Your task to perform on an android device: change keyboard looks Image 0: 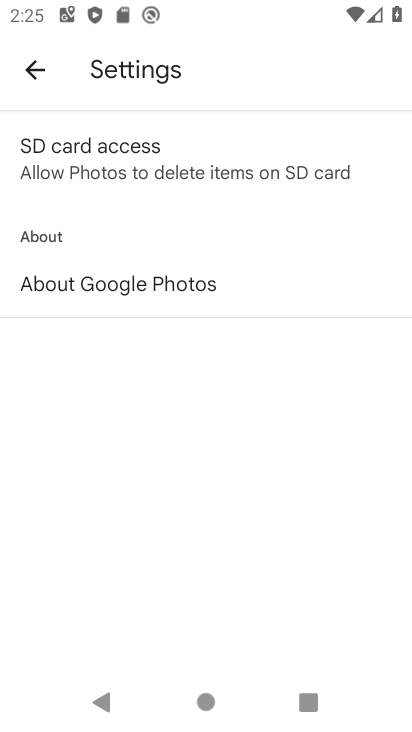
Step 0: press home button
Your task to perform on an android device: change keyboard looks Image 1: 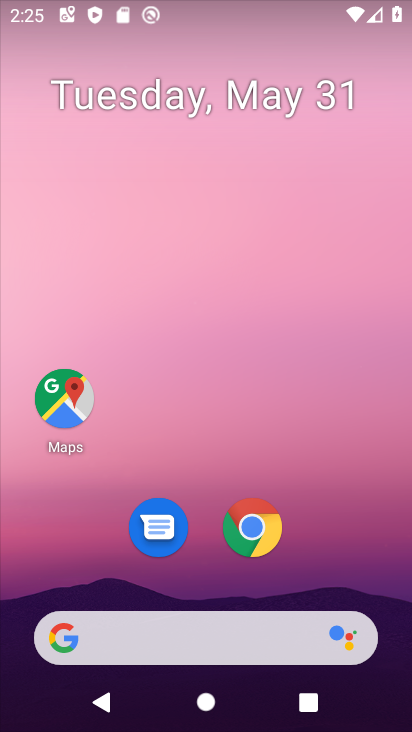
Step 1: drag from (373, 520) to (392, 169)
Your task to perform on an android device: change keyboard looks Image 2: 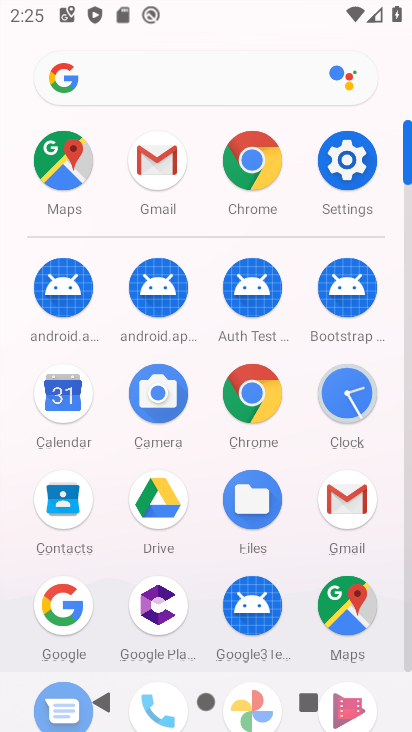
Step 2: click (359, 153)
Your task to perform on an android device: change keyboard looks Image 3: 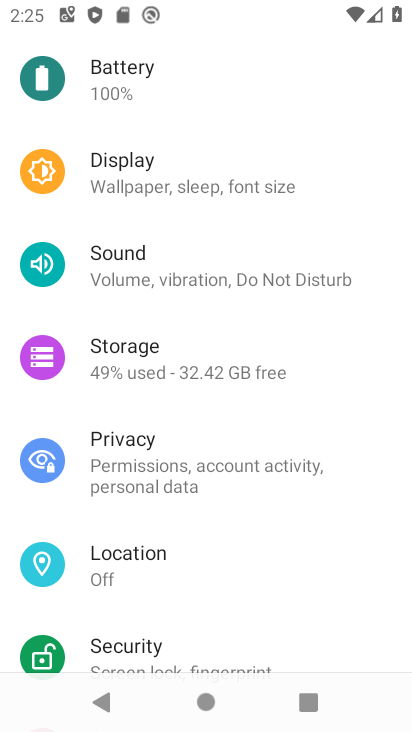
Step 3: drag from (177, 587) to (246, 169)
Your task to perform on an android device: change keyboard looks Image 4: 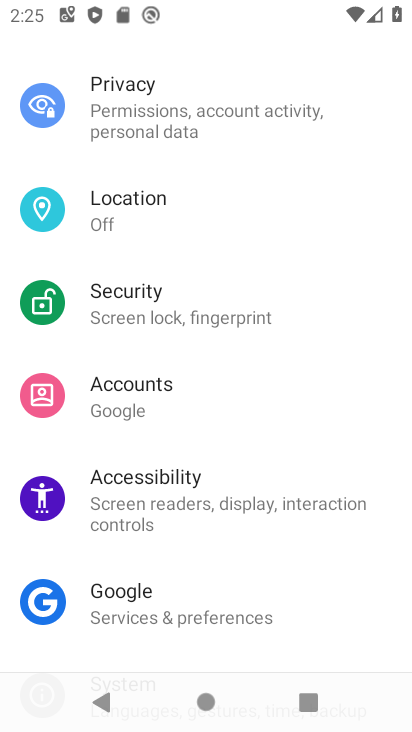
Step 4: drag from (231, 598) to (252, 256)
Your task to perform on an android device: change keyboard looks Image 5: 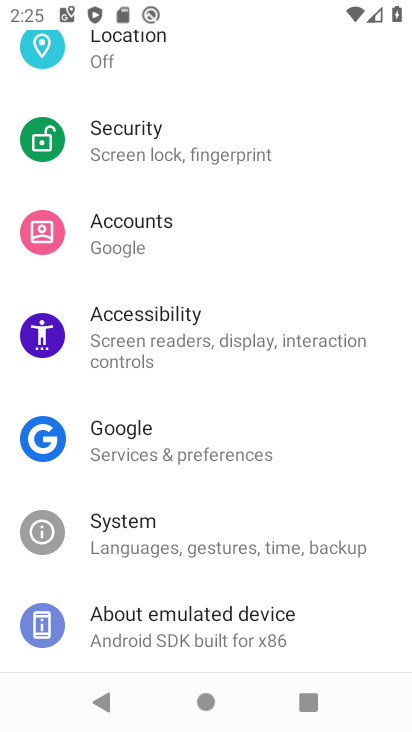
Step 5: drag from (262, 643) to (238, 290)
Your task to perform on an android device: change keyboard looks Image 6: 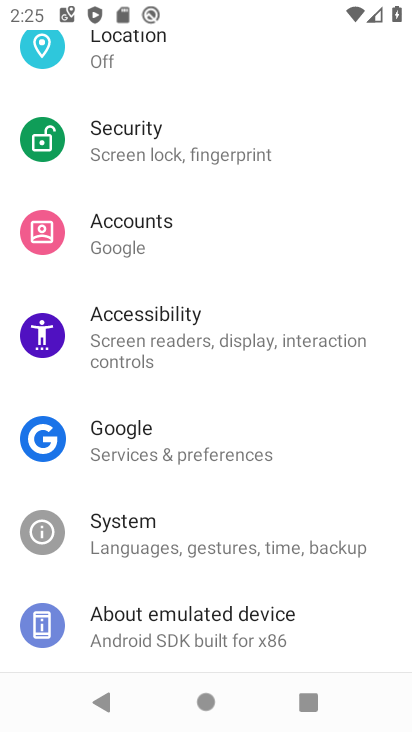
Step 6: click (179, 539)
Your task to perform on an android device: change keyboard looks Image 7: 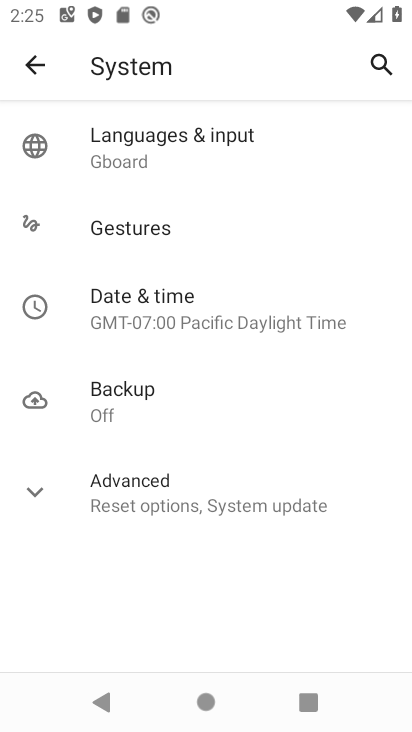
Step 7: click (139, 146)
Your task to perform on an android device: change keyboard looks Image 8: 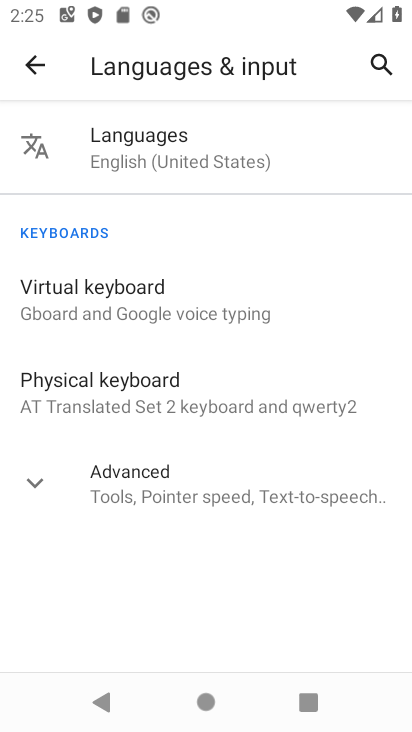
Step 8: click (87, 314)
Your task to perform on an android device: change keyboard looks Image 9: 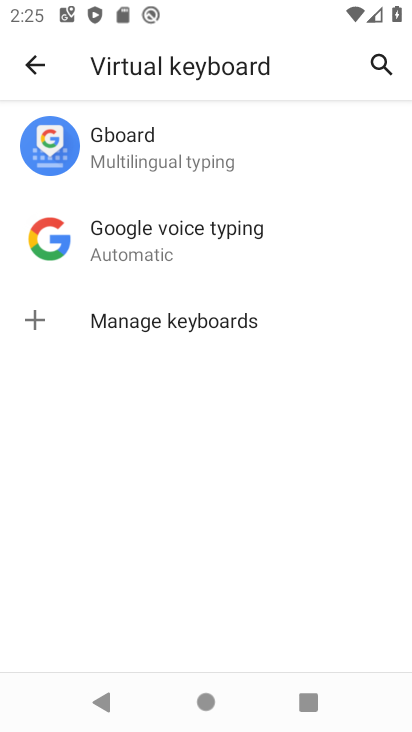
Step 9: click (98, 158)
Your task to perform on an android device: change keyboard looks Image 10: 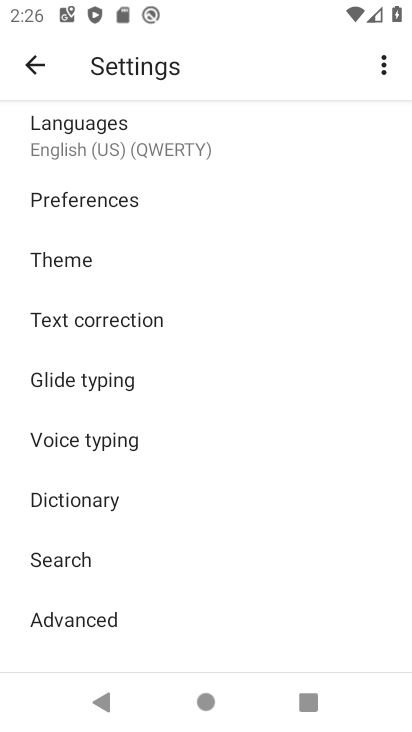
Step 10: click (112, 247)
Your task to perform on an android device: change keyboard looks Image 11: 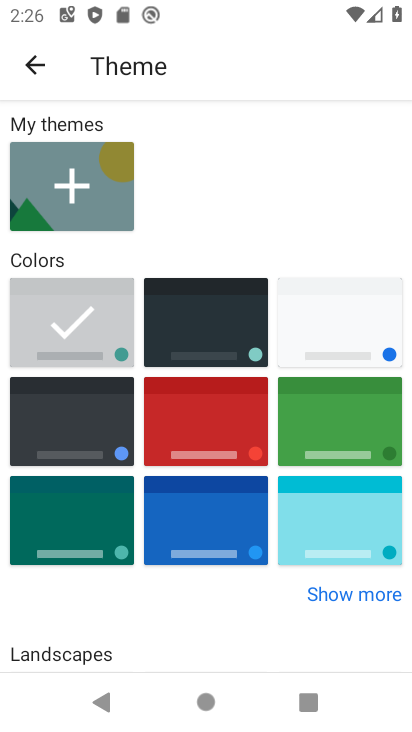
Step 11: click (231, 311)
Your task to perform on an android device: change keyboard looks Image 12: 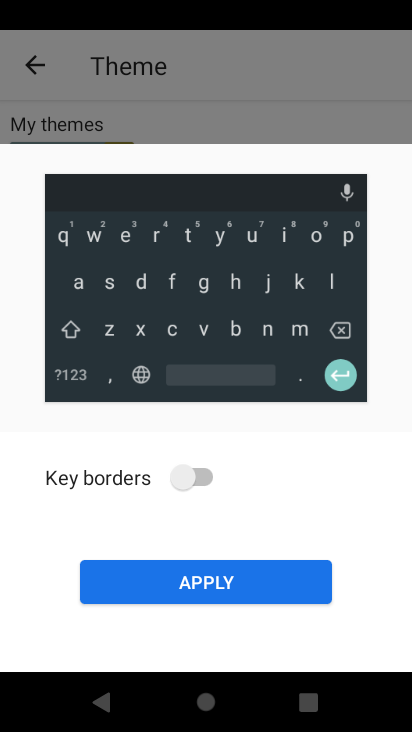
Step 12: click (192, 589)
Your task to perform on an android device: change keyboard looks Image 13: 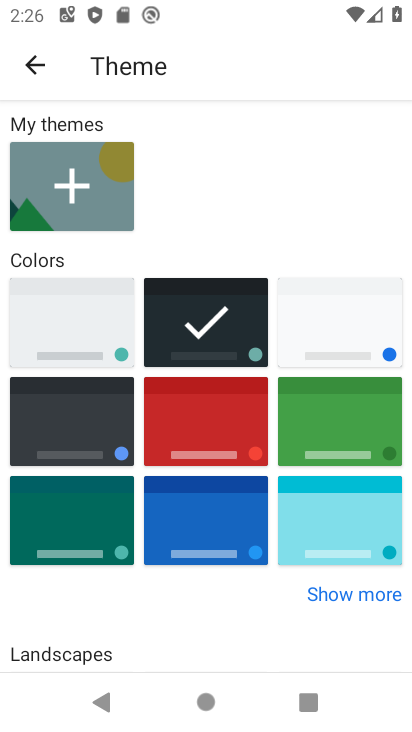
Step 13: task complete